Your task to perform on an android device: empty trash in the gmail app Image 0: 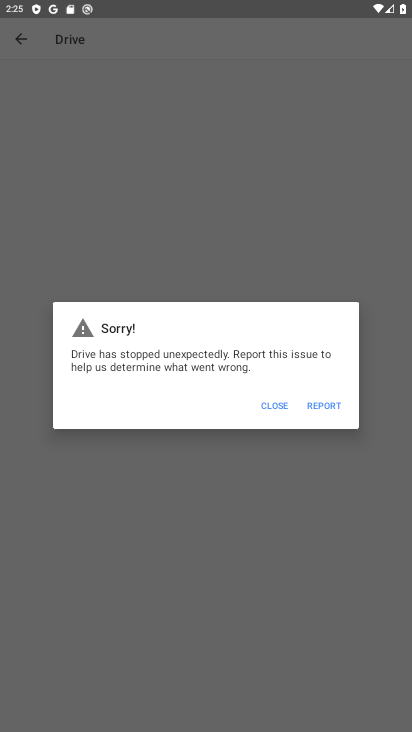
Step 0: press home button
Your task to perform on an android device: empty trash in the gmail app Image 1: 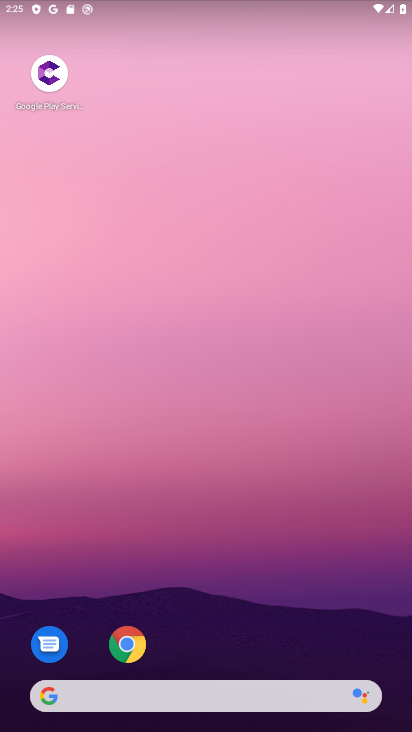
Step 1: drag from (224, 551) to (300, 64)
Your task to perform on an android device: empty trash in the gmail app Image 2: 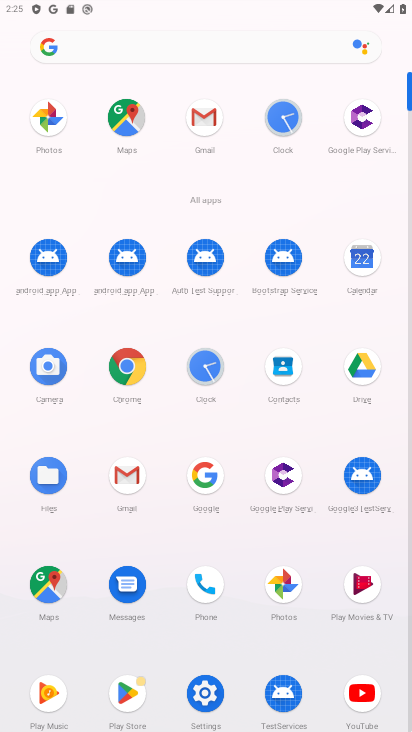
Step 2: click (121, 474)
Your task to perform on an android device: empty trash in the gmail app Image 3: 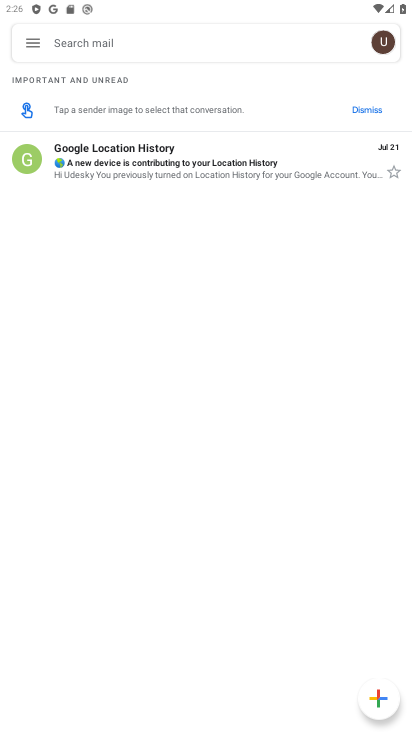
Step 3: click (28, 43)
Your task to perform on an android device: empty trash in the gmail app Image 4: 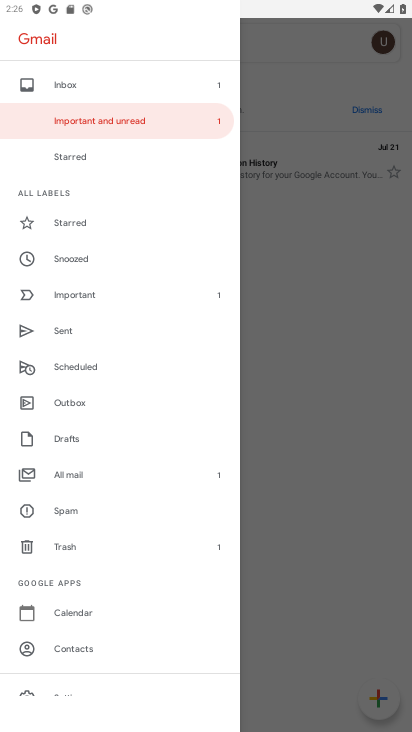
Step 4: click (64, 546)
Your task to perform on an android device: empty trash in the gmail app Image 5: 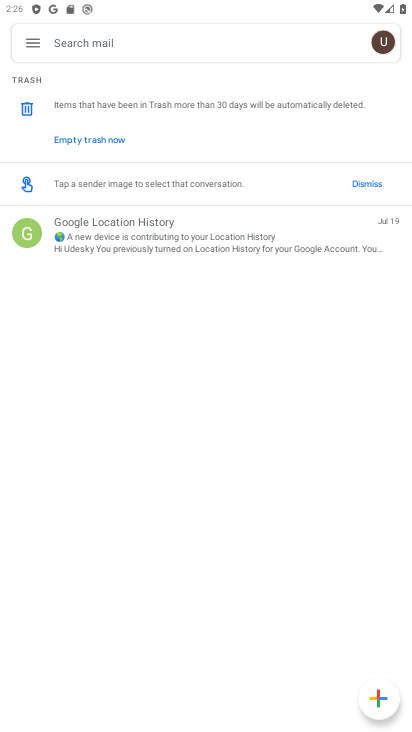
Step 5: click (116, 140)
Your task to perform on an android device: empty trash in the gmail app Image 6: 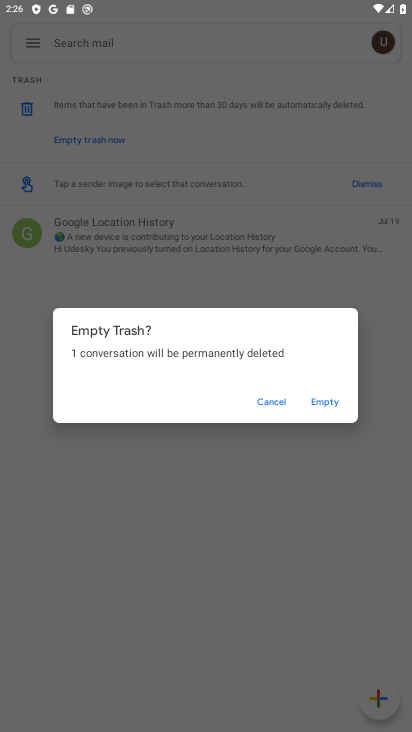
Step 6: click (332, 402)
Your task to perform on an android device: empty trash in the gmail app Image 7: 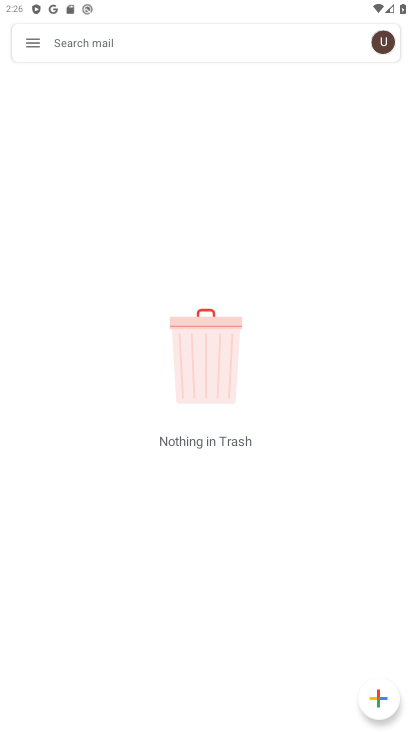
Step 7: task complete